Your task to perform on an android device: show emergency info Image 0: 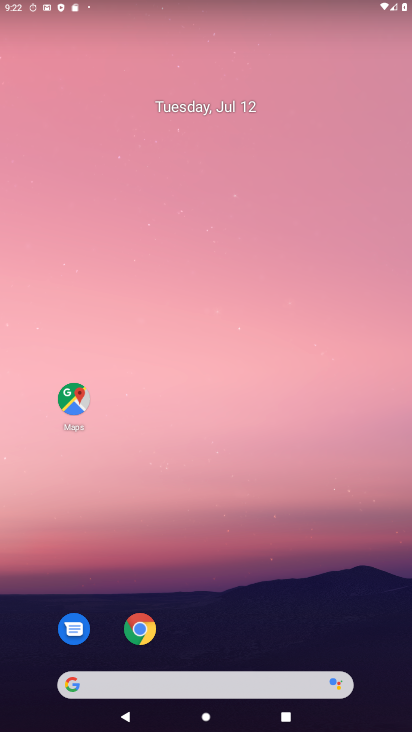
Step 0: drag from (273, 684) to (227, 209)
Your task to perform on an android device: show emergency info Image 1: 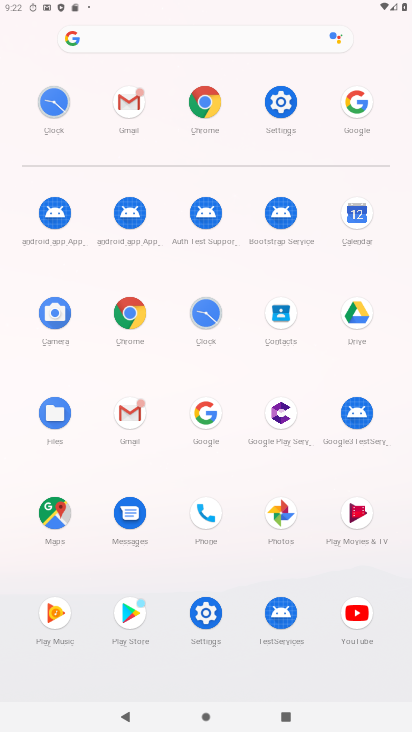
Step 1: click (286, 105)
Your task to perform on an android device: show emergency info Image 2: 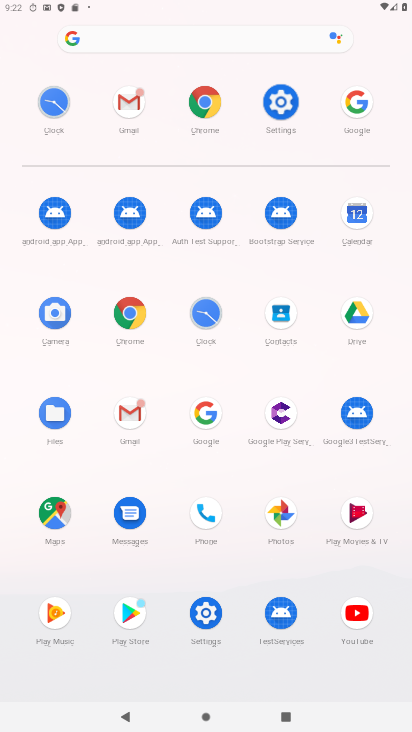
Step 2: click (299, 93)
Your task to perform on an android device: show emergency info Image 3: 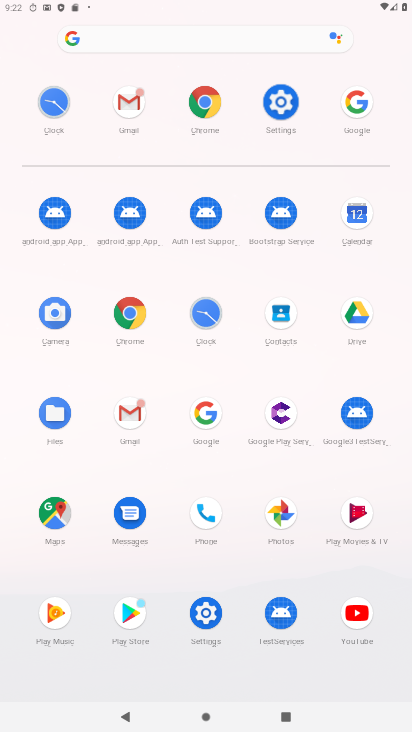
Step 3: click (299, 93)
Your task to perform on an android device: show emergency info Image 4: 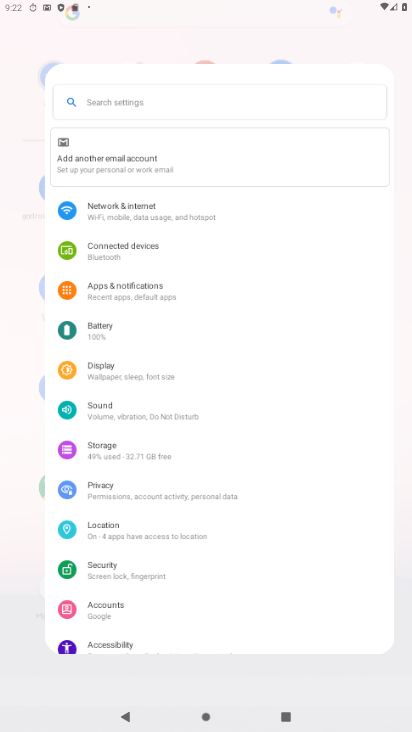
Step 4: click (287, 108)
Your task to perform on an android device: show emergency info Image 5: 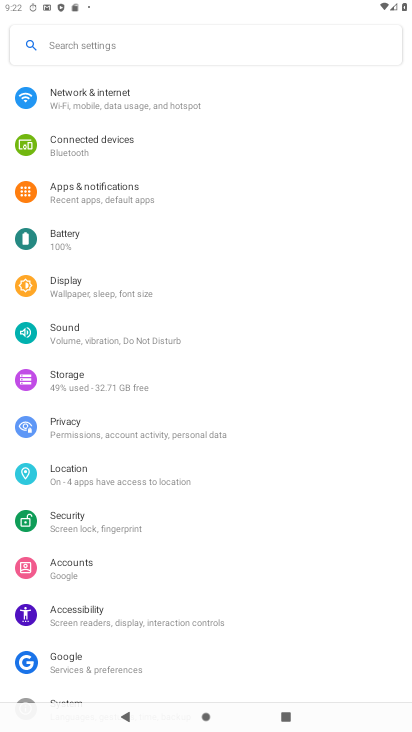
Step 5: click (287, 108)
Your task to perform on an android device: show emergency info Image 6: 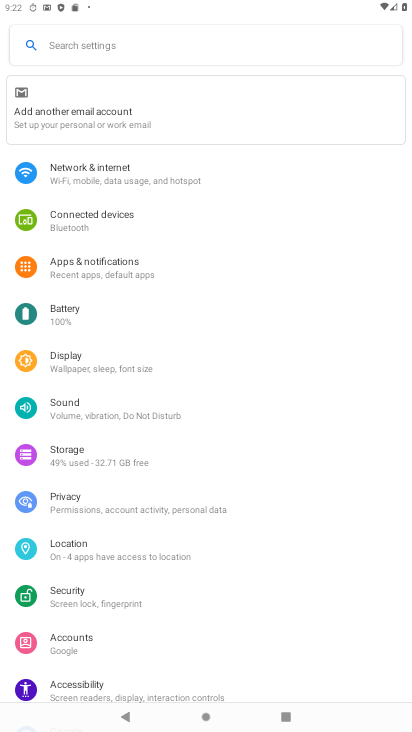
Step 6: drag from (138, 588) to (96, 167)
Your task to perform on an android device: show emergency info Image 7: 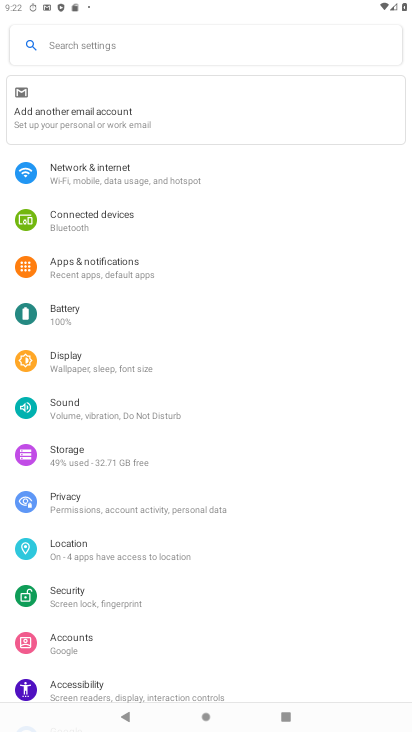
Step 7: drag from (140, 610) to (175, 220)
Your task to perform on an android device: show emergency info Image 8: 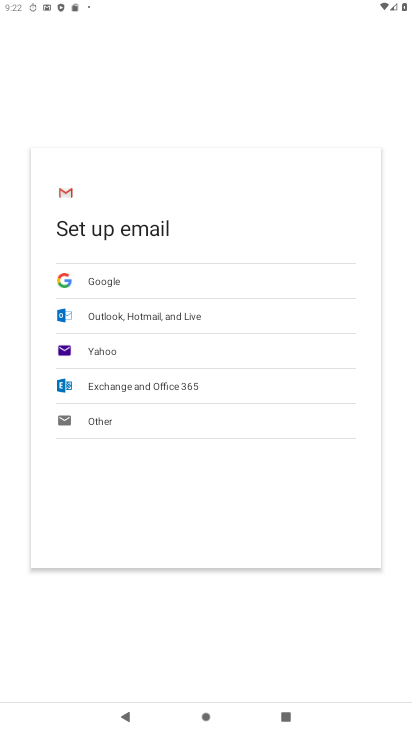
Step 8: drag from (102, 574) to (130, 297)
Your task to perform on an android device: show emergency info Image 9: 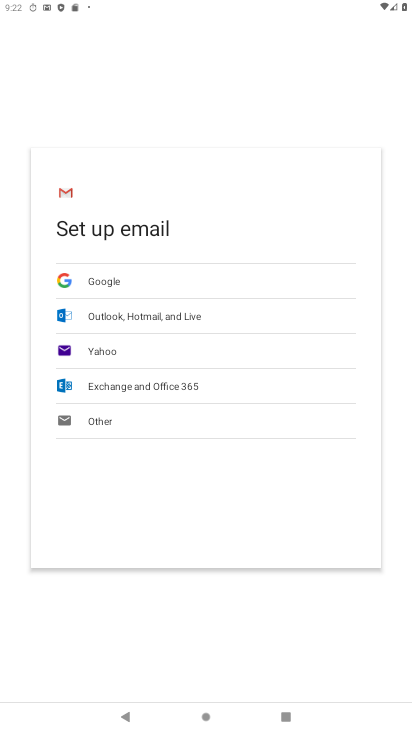
Step 9: click (76, 120)
Your task to perform on an android device: show emergency info Image 10: 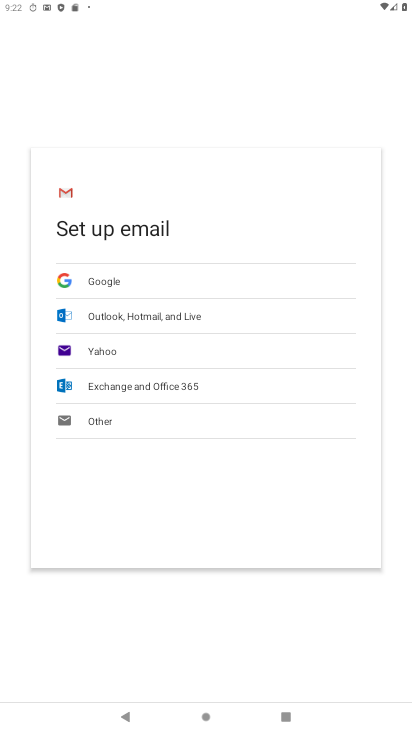
Step 10: click (81, 116)
Your task to perform on an android device: show emergency info Image 11: 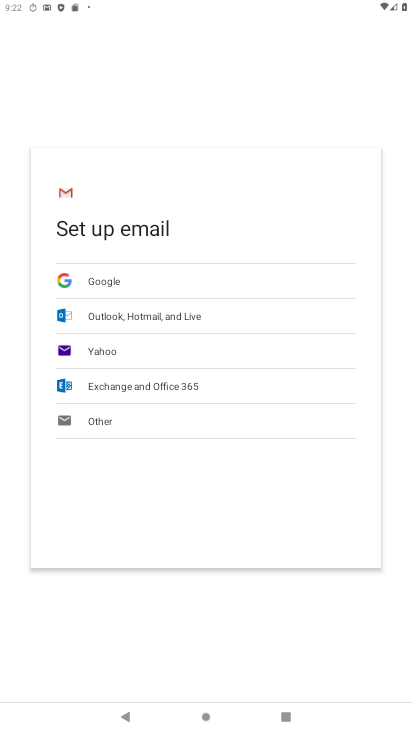
Step 11: click (92, 85)
Your task to perform on an android device: show emergency info Image 12: 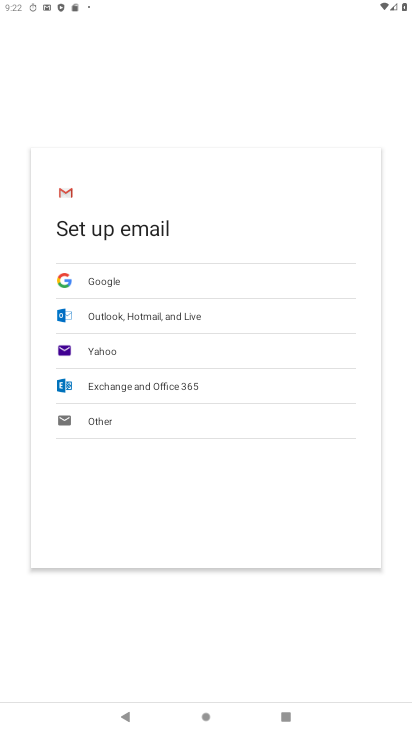
Step 12: click (92, 85)
Your task to perform on an android device: show emergency info Image 13: 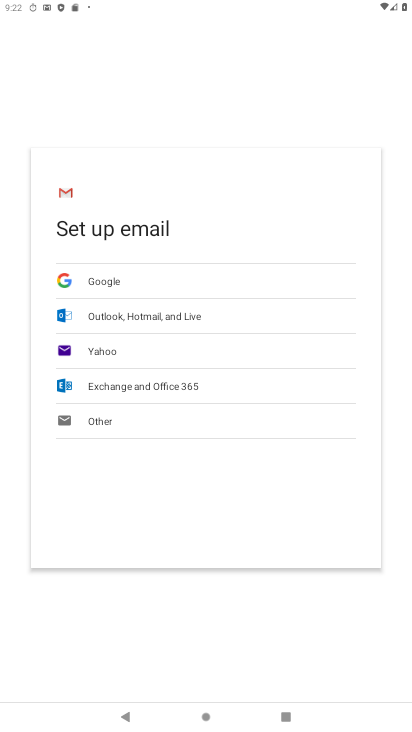
Step 13: click (174, 612)
Your task to perform on an android device: show emergency info Image 14: 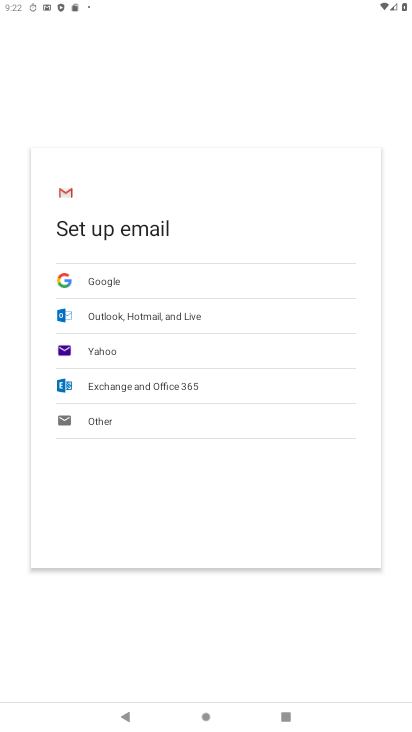
Step 14: click (181, 607)
Your task to perform on an android device: show emergency info Image 15: 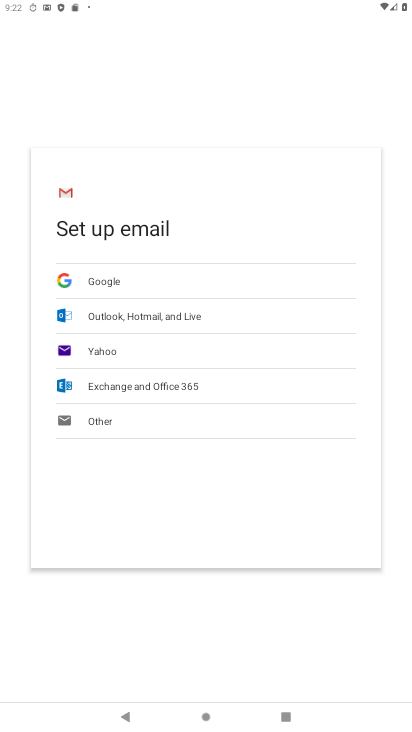
Step 15: click (180, 605)
Your task to perform on an android device: show emergency info Image 16: 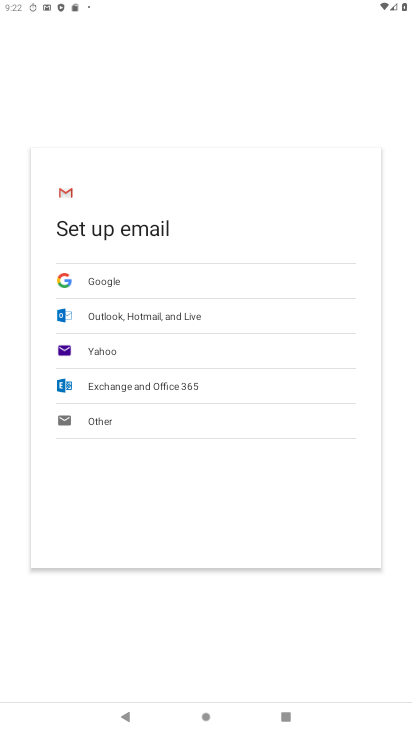
Step 16: click (179, 605)
Your task to perform on an android device: show emergency info Image 17: 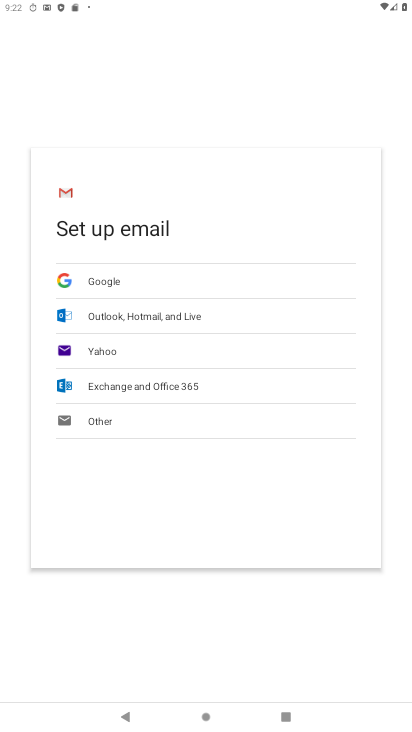
Step 17: click (178, 608)
Your task to perform on an android device: show emergency info Image 18: 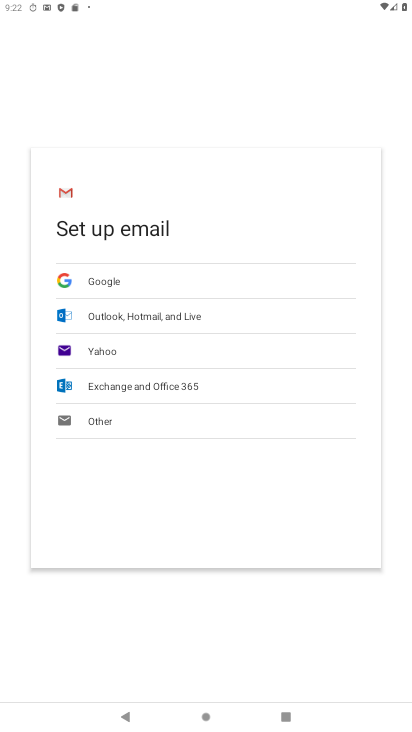
Step 18: click (177, 612)
Your task to perform on an android device: show emergency info Image 19: 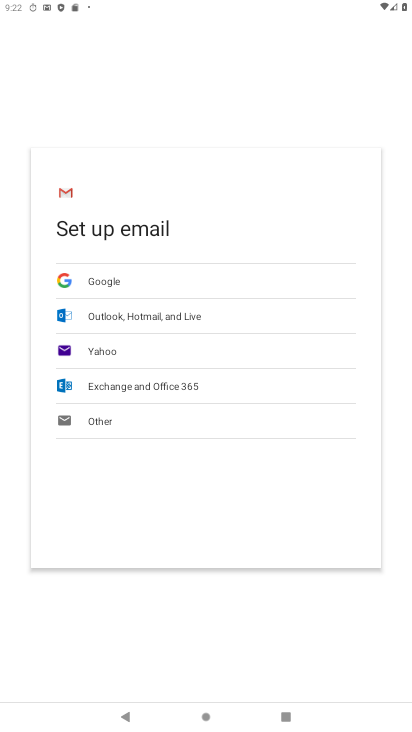
Step 19: click (185, 605)
Your task to perform on an android device: show emergency info Image 20: 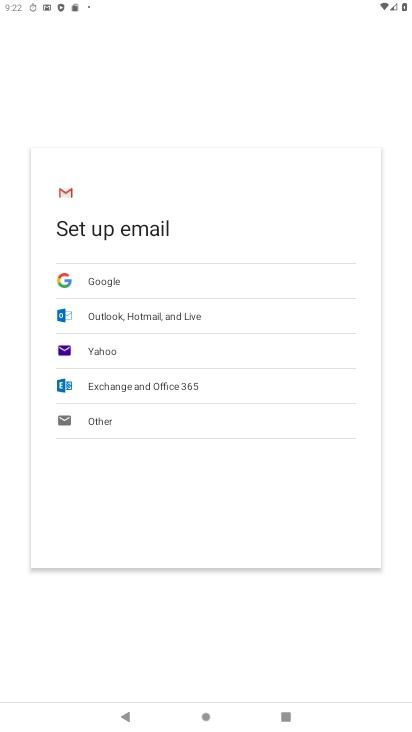
Step 20: click (185, 605)
Your task to perform on an android device: show emergency info Image 21: 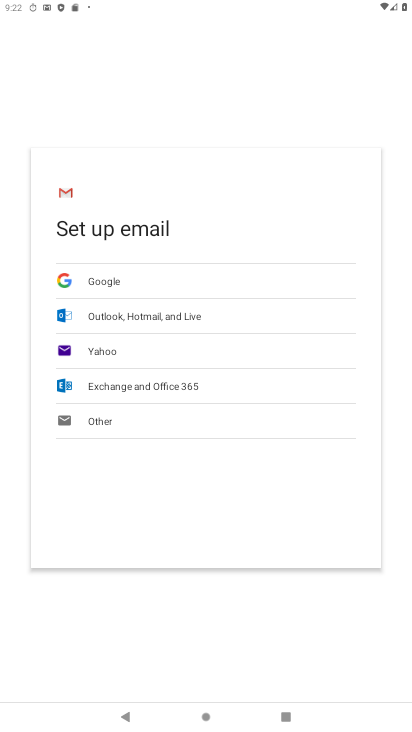
Step 21: click (20, 337)
Your task to perform on an android device: show emergency info Image 22: 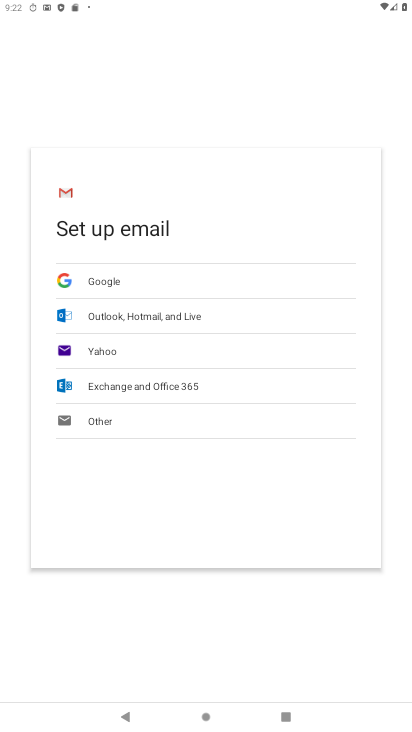
Step 22: click (20, 337)
Your task to perform on an android device: show emergency info Image 23: 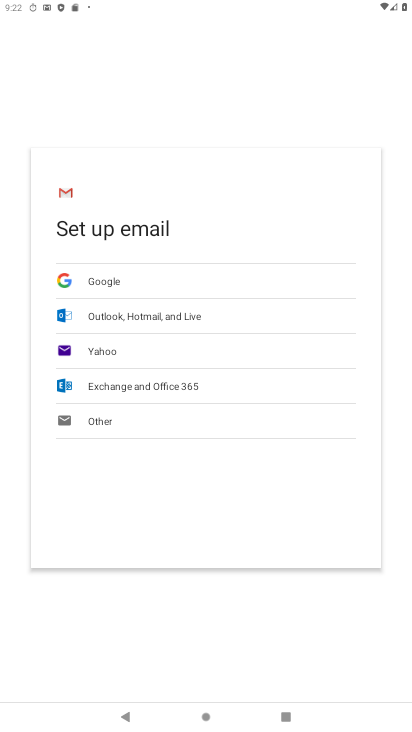
Step 23: click (19, 336)
Your task to perform on an android device: show emergency info Image 24: 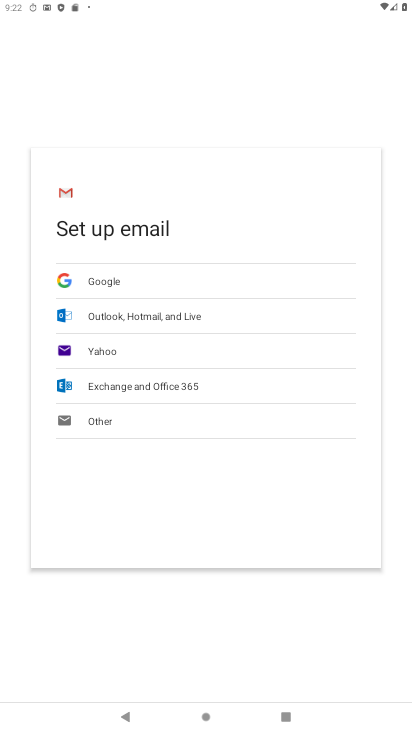
Step 24: click (20, 335)
Your task to perform on an android device: show emergency info Image 25: 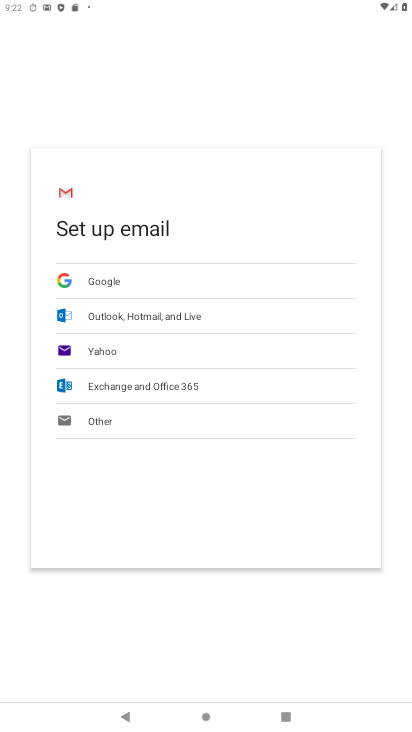
Step 25: click (20, 335)
Your task to perform on an android device: show emergency info Image 26: 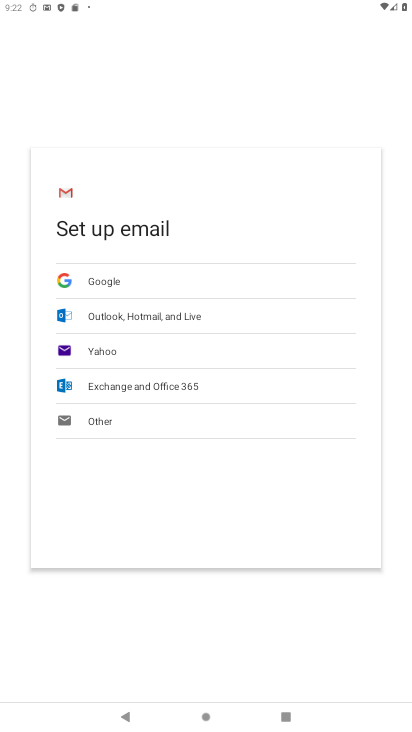
Step 26: click (105, 147)
Your task to perform on an android device: show emergency info Image 27: 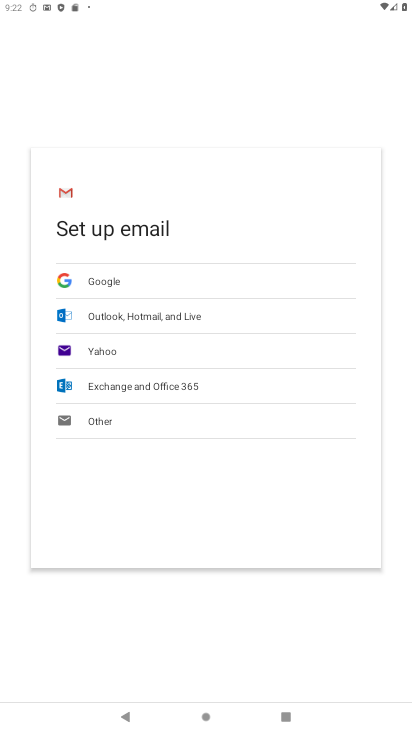
Step 27: click (115, 152)
Your task to perform on an android device: show emergency info Image 28: 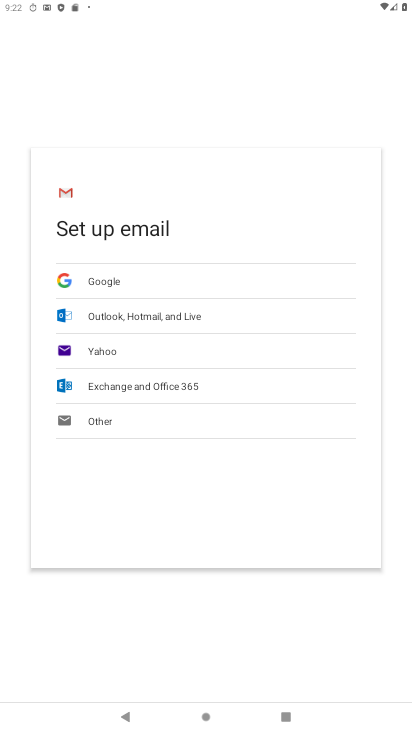
Step 28: drag from (122, 161) to (355, 192)
Your task to perform on an android device: show emergency info Image 29: 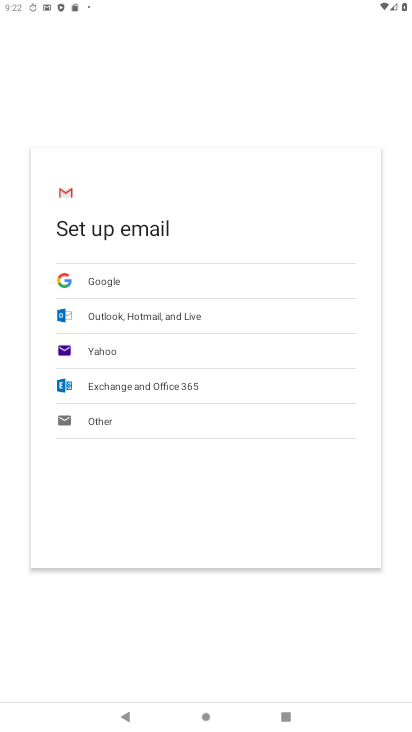
Step 29: click (396, 290)
Your task to perform on an android device: show emergency info Image 30: 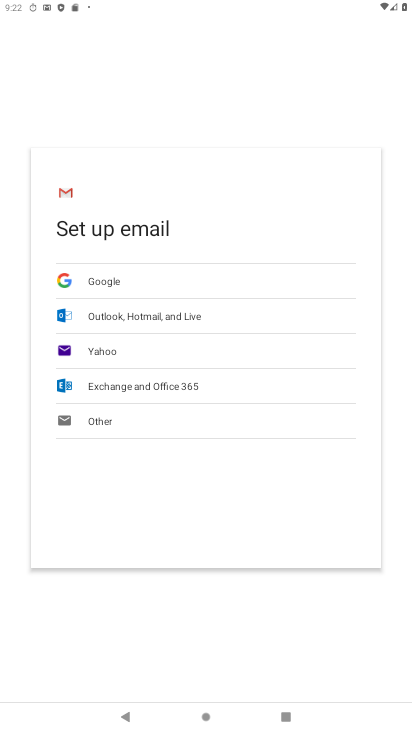
Step 30: click (399, 293)
Your task to perform on an android device: show emergency info Image 31: 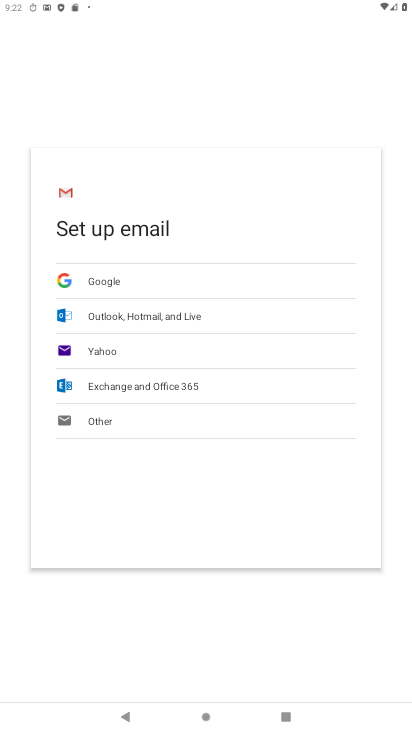
Step 31: click (177, 604)
Your task to perform on an android device: show emergency info Image 32: 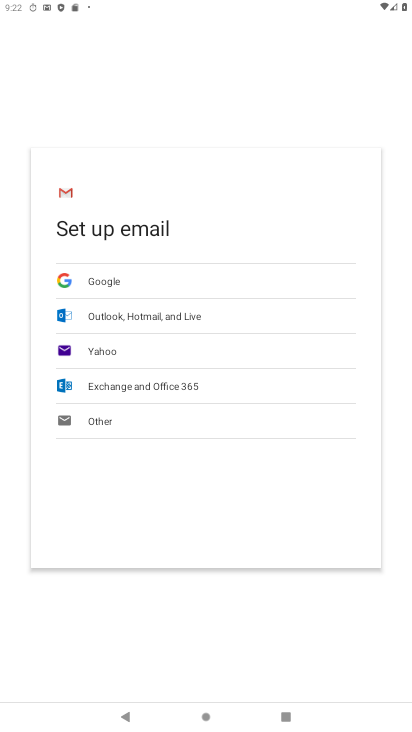
Step 32: click (194, 598)
Your task to perform on an android device: show emergency info Image 33: 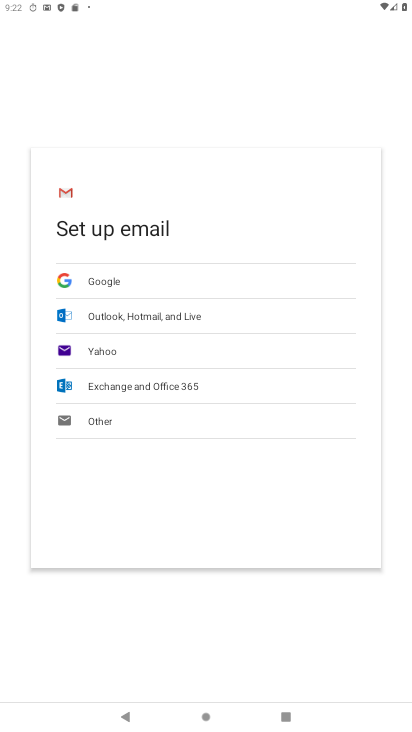
Step 33: press back button
Your task to perform on an android device: show emergency info Image 34: 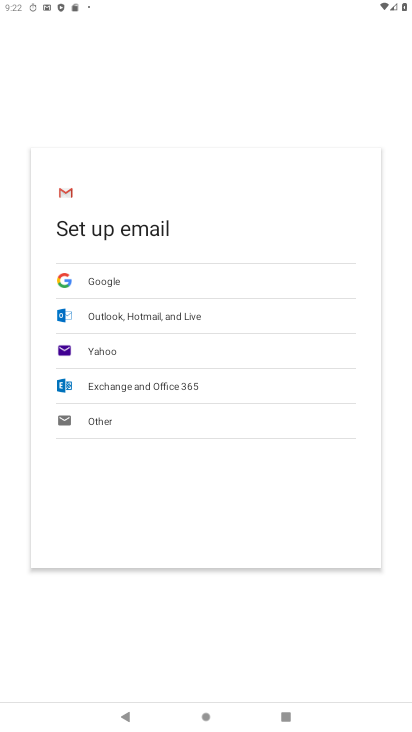
Step 34: press back button
Your task to perform on an android device: show emergency info Image 35: 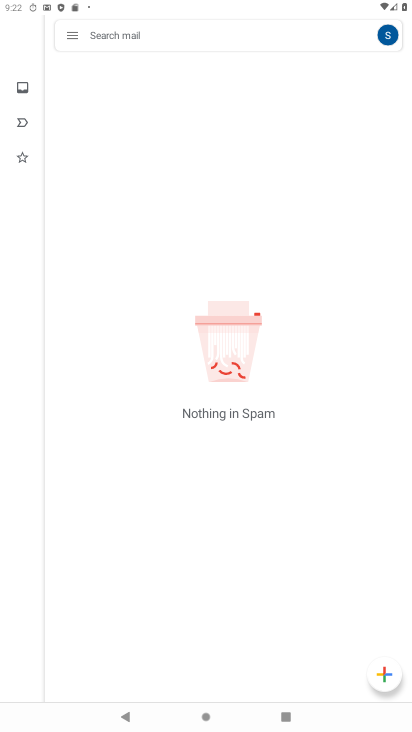
Step 35: press home button
Your task to perform on an android device: show emergency info Image 36: 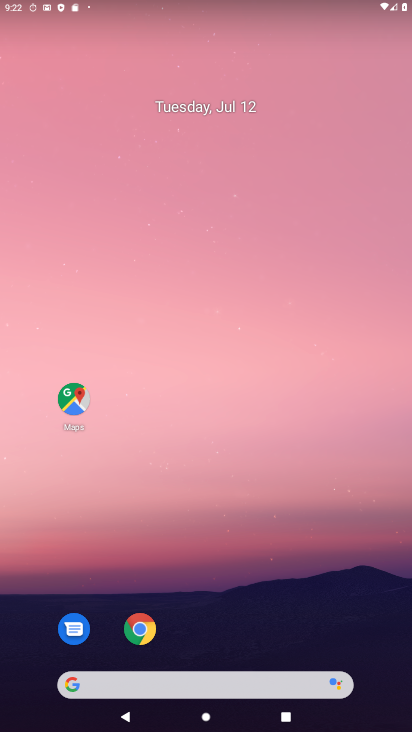
Step 36: drag from (223, 660) to (178, 47)
Your task to perform on an android device: show emergency info Image 37: 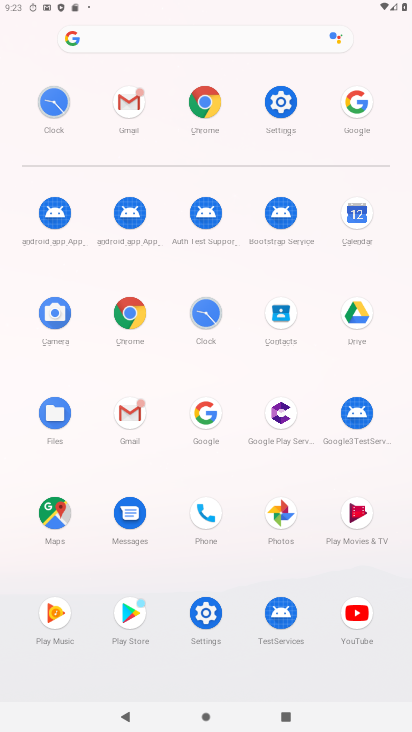
Step 37: click (282, 111)
Your task to perform on an android device: show emergency info Image 38: 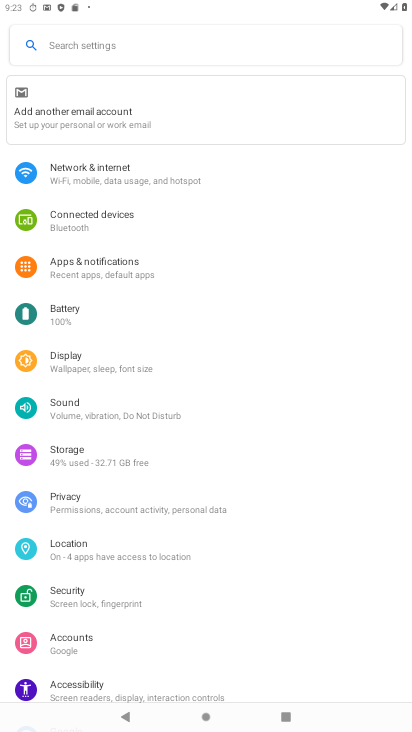
Step 38: drag from (123, 532) to (105, 193)
Your task to perform on an android device: show emergency info Image 39: 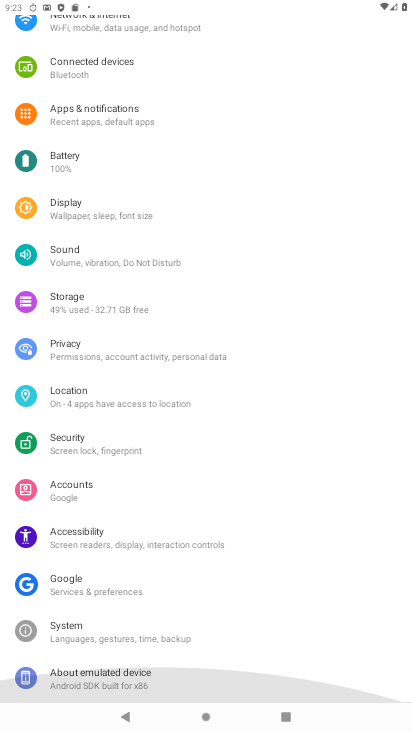
Step 39: drag from (193, 494) to (220, 163)
Your task to perform on an android device: show emergency info Image 40: 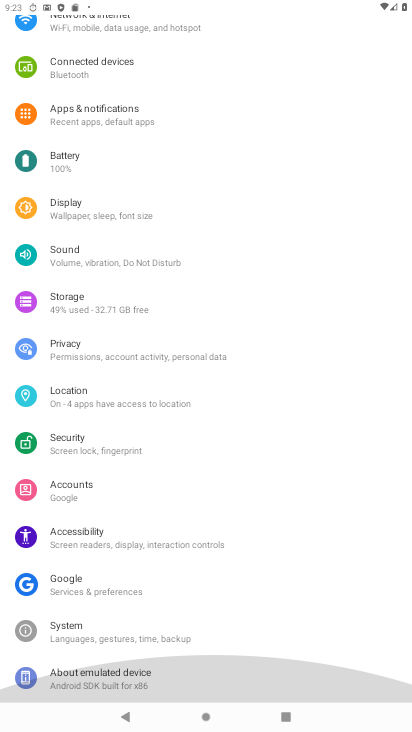
Step 40: drag from (206, 472) to (279, 222)
Your task to perform on an android device: show emergency info Image 41: 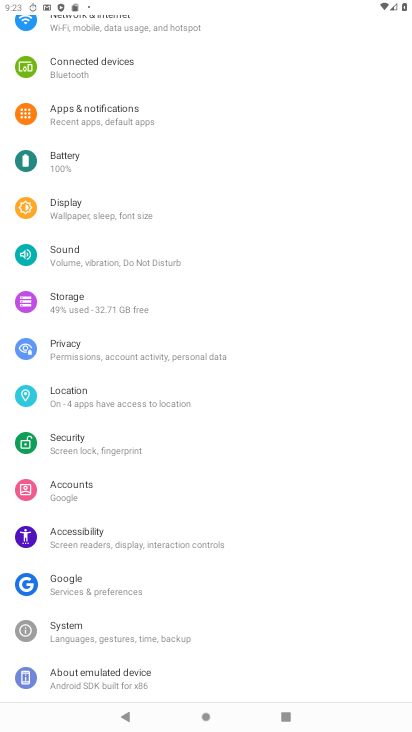
Step 41: click (112, 685)
Your task to perform on an android device: show emergency info Image 42: 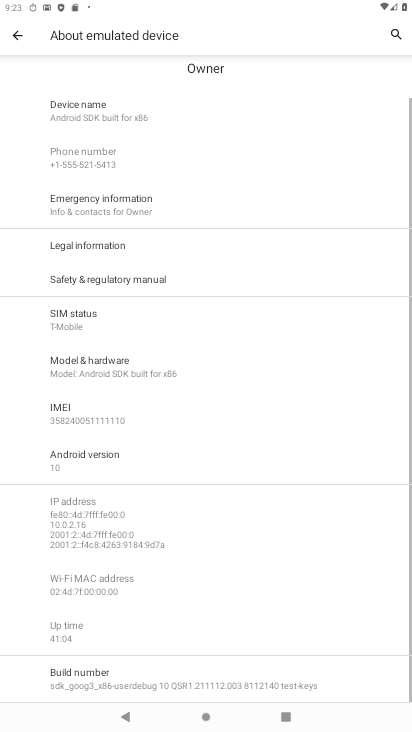
Step 42: task complete